Your task to perform on an android device: What is the capital of Argentina? Image 0: 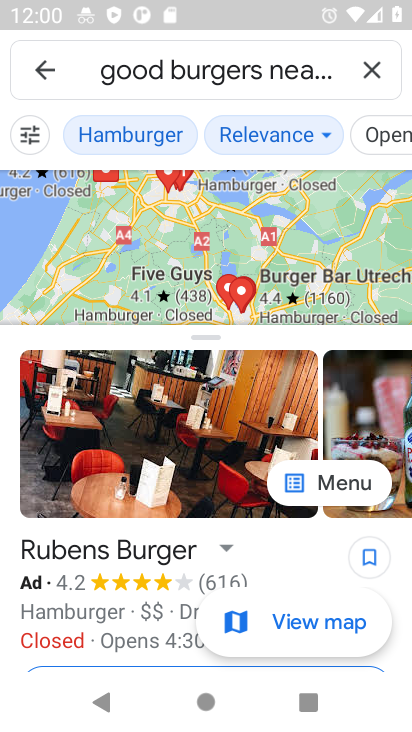
Step 0: press home button
Your task to perform on an android device: What is the capital of Argentina? Image 1: 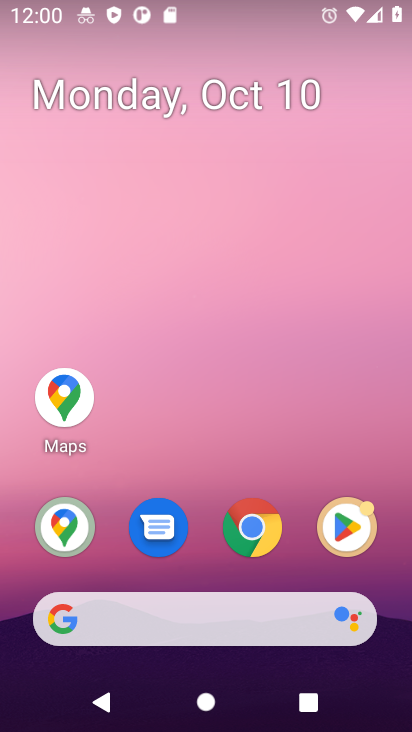
Step 1: click (244, 520)
Your task to perform on an android device: What is the capital of Argentina? Image 2: 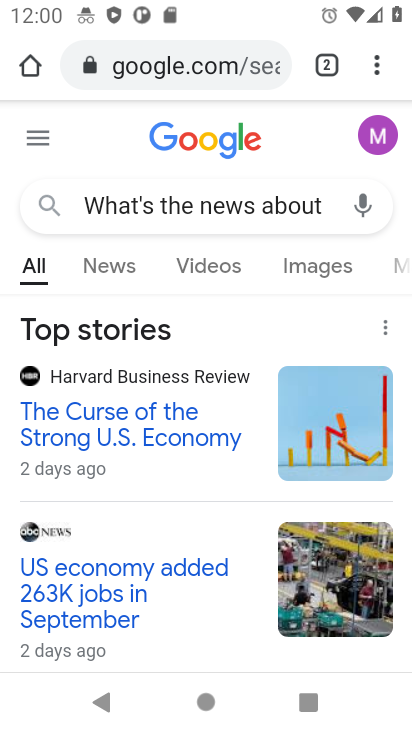
Step 2: click (132, 67)
Your task to perform on an android device: What is the capital of Argentina? Image 3: 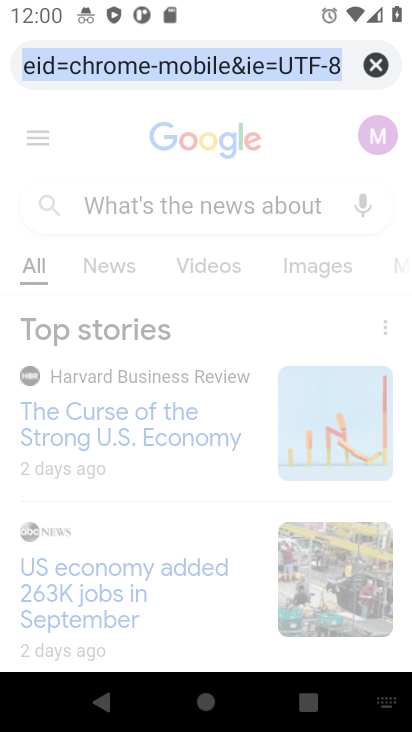
Step 3: type "What is the capital of Argentina?"
Your task to perform on an android device: What is the capital of Argentina? Image 4: 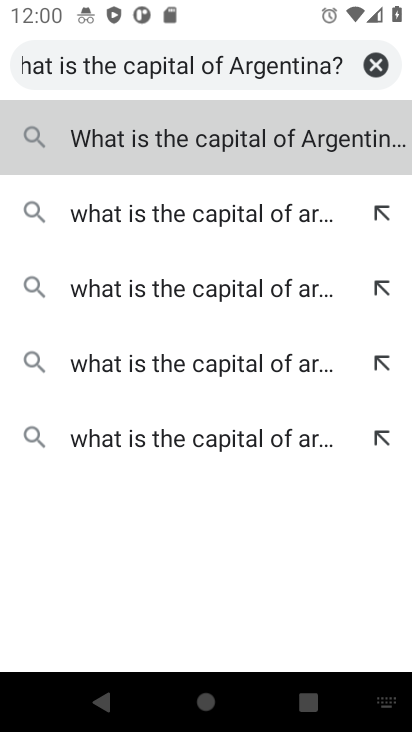
Step 4: click (188, 120)
Your task to perform on an android device: What is the capital of Argentina? Image 5: 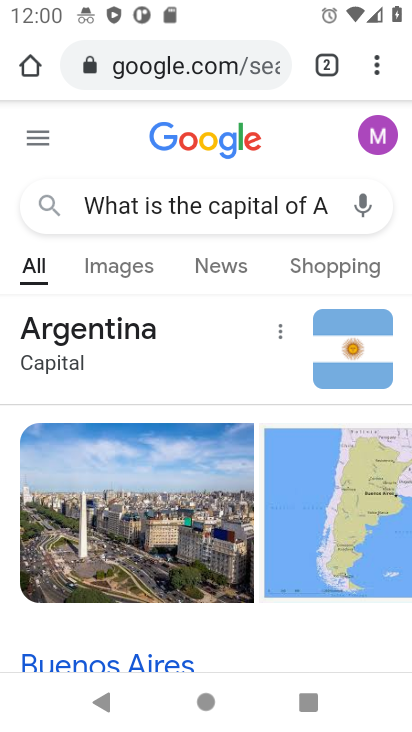
Step 5: task complete